Your task to perform on an android device: move an email to a new category in the gmail app Image 0: 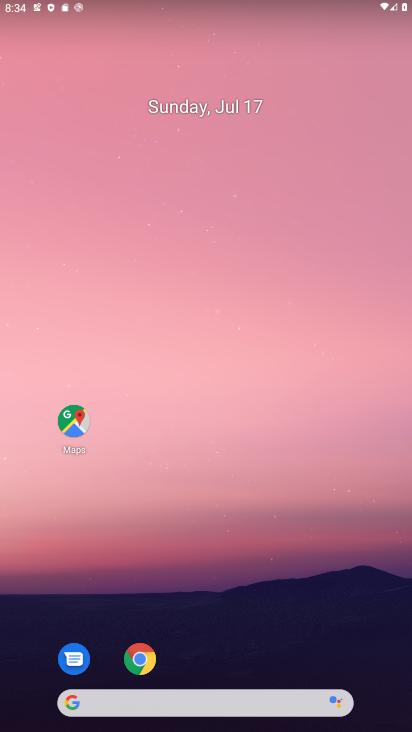
Step 0: drag from (206, 617) to (209, 171)
Your task to perform on an android device: move an email to a new category in the gmail app Image 1: 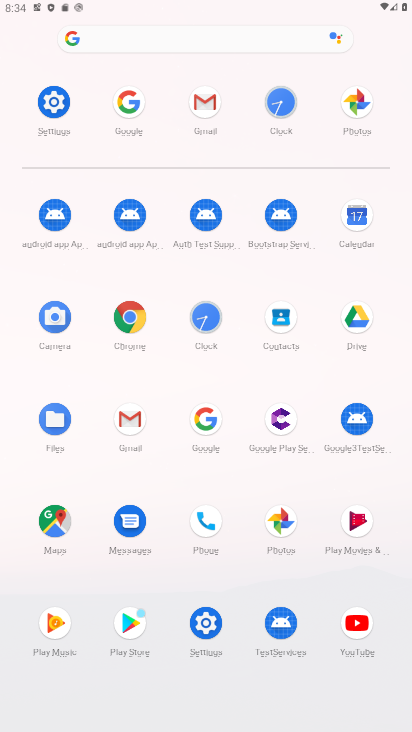
Step 1: click (221, 105)
Your task to perform on an android device: move an email to a new category in the gmail app Image 2: 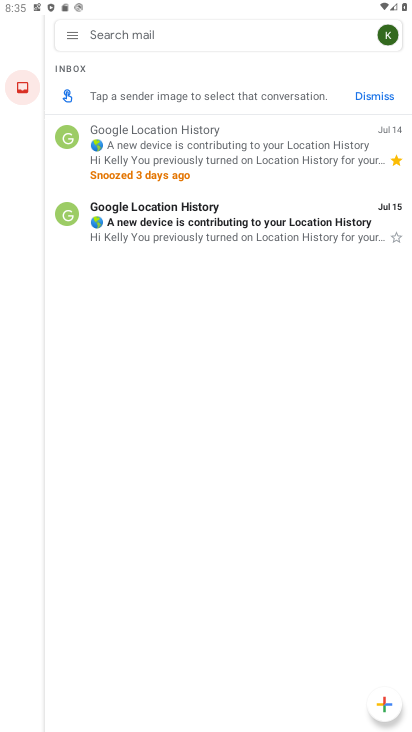
Step 2: click (182, 158)
Your task to perform on an android device: move an email to a new category in the gmail app Image 3: 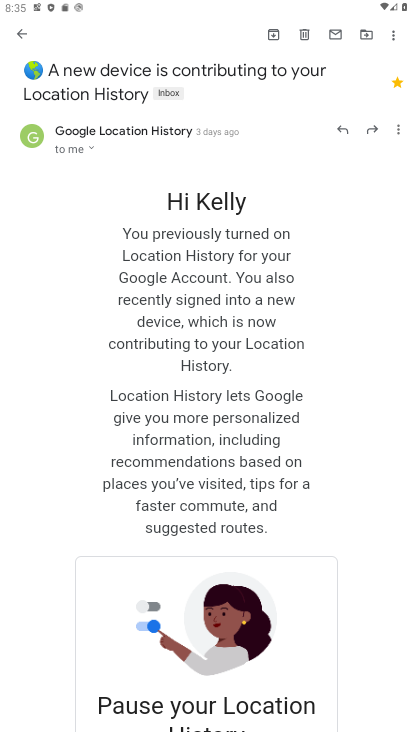
Step 3: click (390, 32)
Your task to perform on an android device: move an email to a new category in the gmail app Image 4: 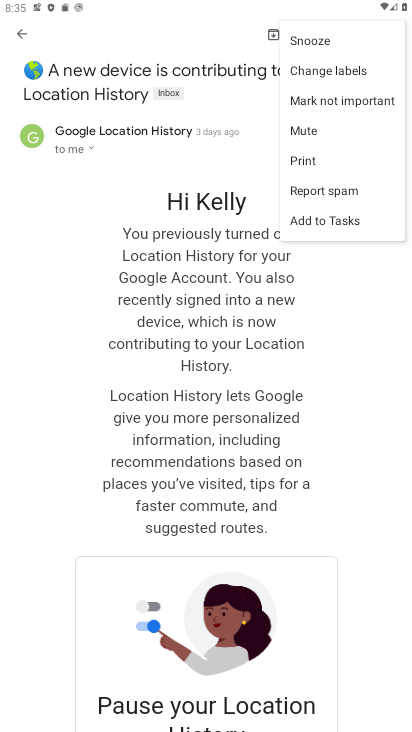
Step 4: click (361, 74)
Your task to perform on an android device: move an email to a new category in the gmail app Image 5: 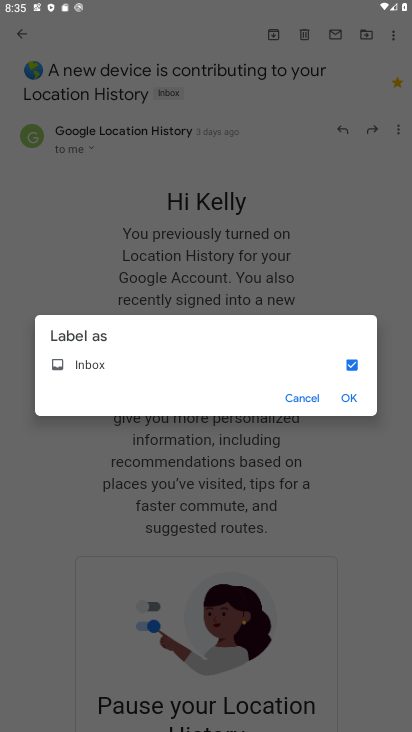
Step 5: click (345, 392)
Your task to perform on an android device: move an email to a new category in the gmail app Image 6: 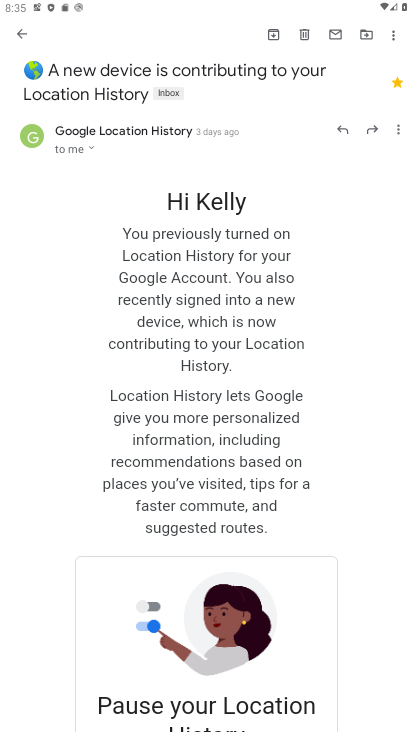
Step 6: task complete